Your task to perform on an android device: turn off notifications in google photos Image 0: 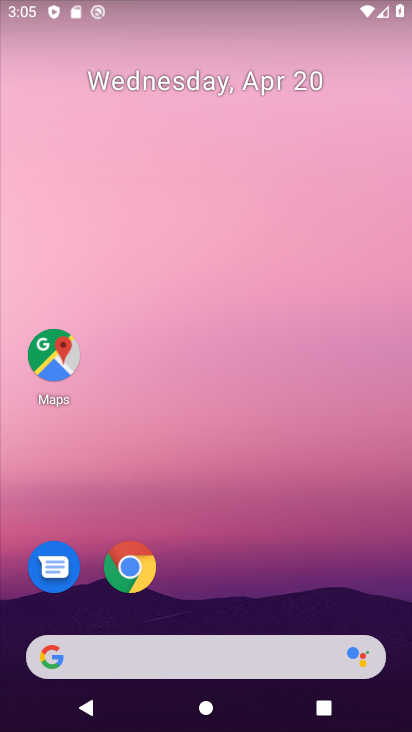
Step 0: drag from (353, 579) to (323, 11)
Your task to perform on an android device: turn off notifications in google photos Image 1: 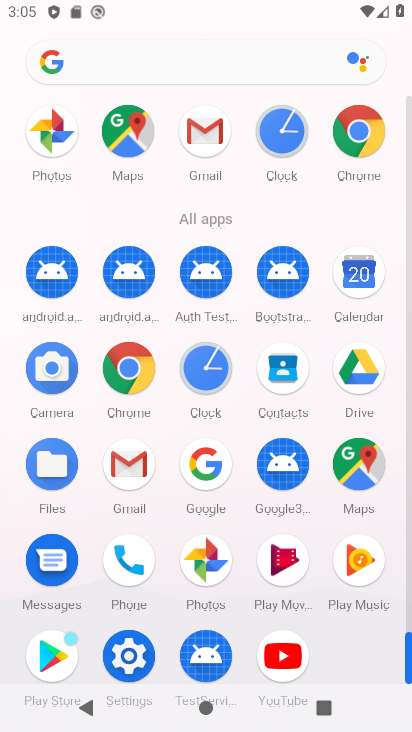
Step 1: drag from (13, 354) to (7, 175)
Your task to perform on an android device: turn off notifications in google photos Image 2: 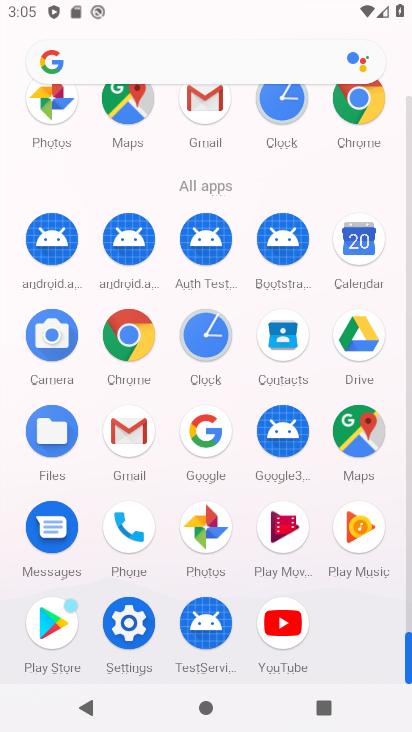
Step 2: click (204, 523)
Your task to perform on an android device: turn off notifications in google photos Image 3: 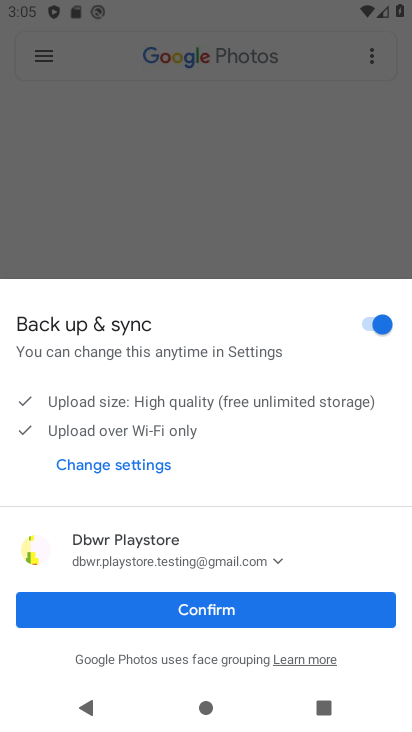
Step 3: click (211, 604)
Your task to perform on an android device: turn off notifications in google photos Image 4: 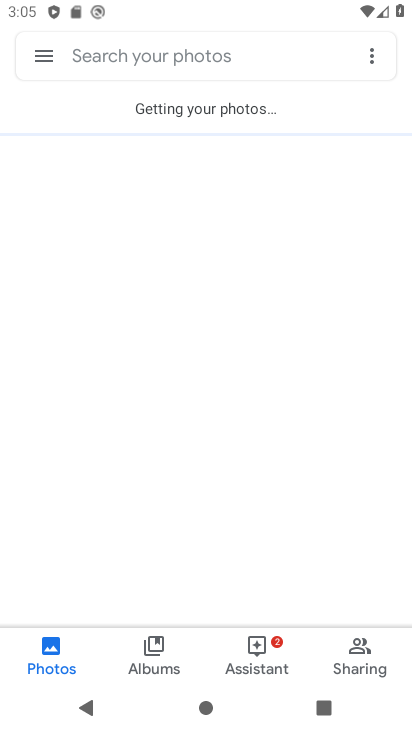
Step 4: click (41, 46)
Your task to perform on an android device: turn off notifications in google photos Image 5: 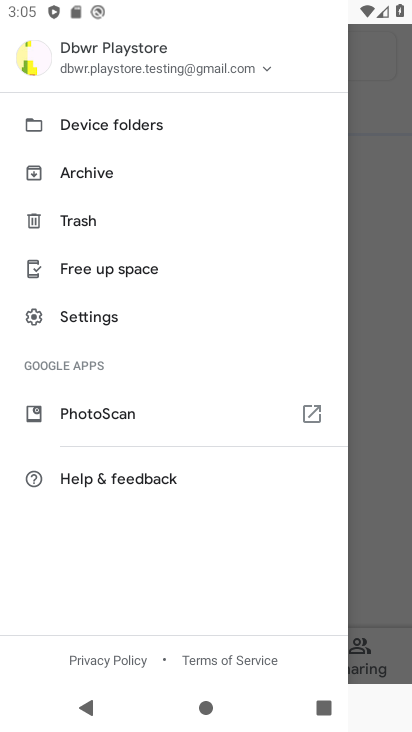
Step 5: click (111, 316)
Your task to perform on an android device: turn off notifications in google photos Image 6: 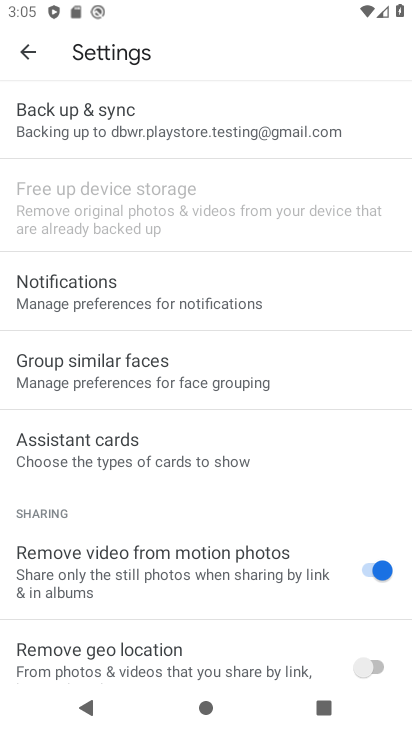
Step 6: click (133, 287)
Your task to perform on an android device: turn off notifications in google photos Image 7: 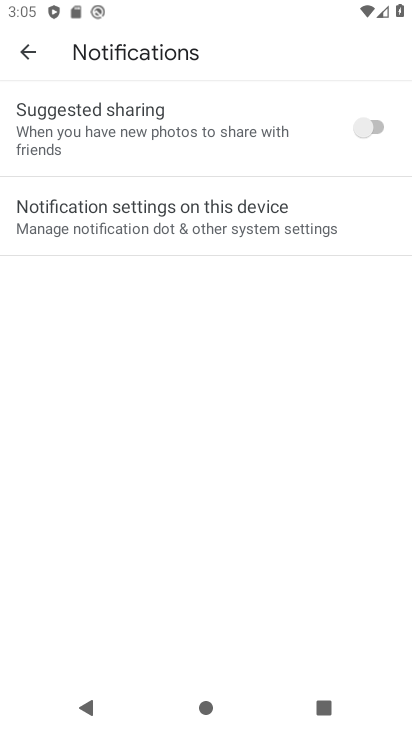
Step 7: click (152, 212)
Your task to perform on an android device: turn off notifications in google photos Image 8: 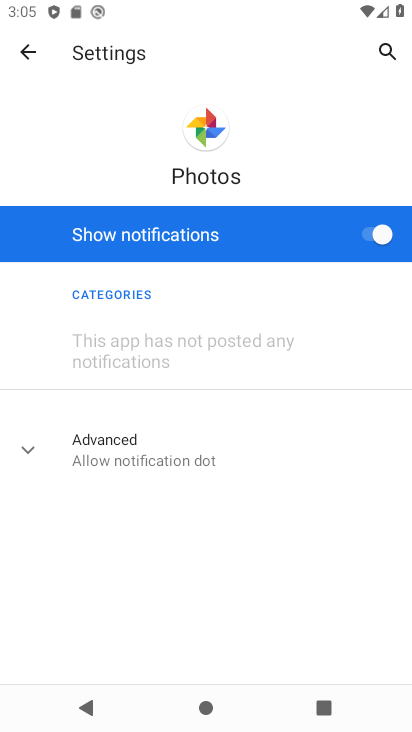
Step 8: click (375, 240)
Your task to perform on an android device: turn off notifications in google photos Image 9: 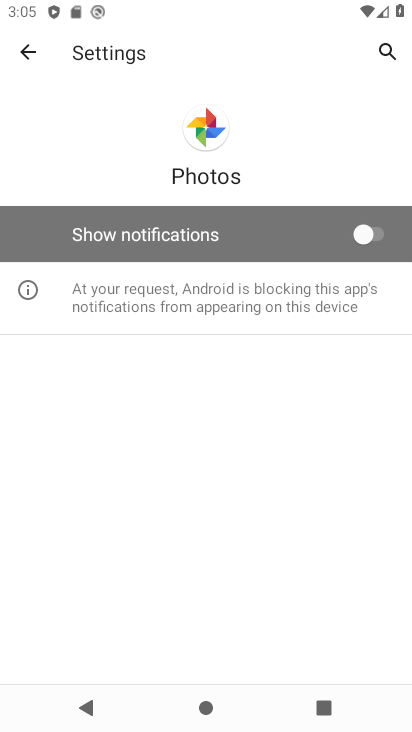
Step 9: task complete